Your task to perform on an android device: Search for "usb-a to usb-b" on costco, select the first entry, and add it to the cart. Image 0: 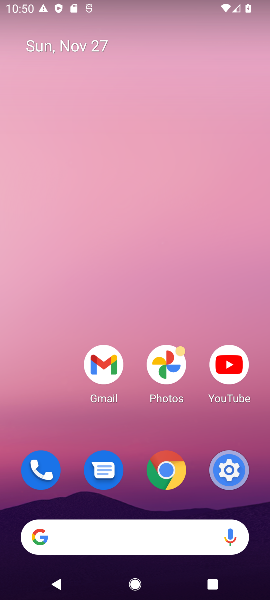
Step 0: click (141, 528)
Your task to perform on an android device: Search for "usb-a to usb-b" on costco, select the first entry, and add it to the cart. Image 1: 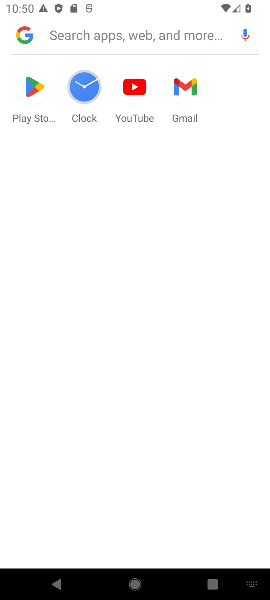
Step 1: type "usb-a to usb-b"
Your task to perform on an android device: Search for "usb-a to usb-b" on costco, select the first entry, and add it to the cart. Image 2: 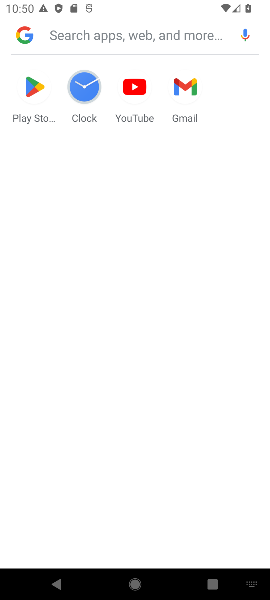
Step 2: click (200, 252)
Your task to perform on an android device: Search for "usb-a to usb-b" on costco, select the first entry, and add it to the cart. Image 3: 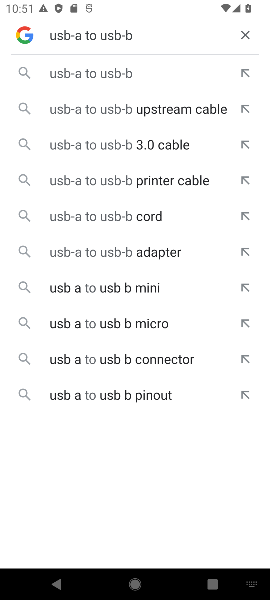
Step 3: click (70, 77)
Your task to perform on an android device: Search for "usb-a to usb-b" on costco, select the first entry, and add it to the cart. Image 4: 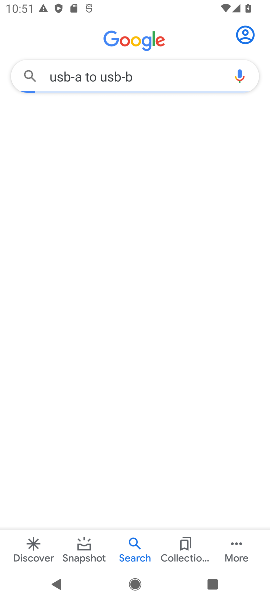
Step 4: task complete